Your task to perform on an android device: turn on wifi Image 0: 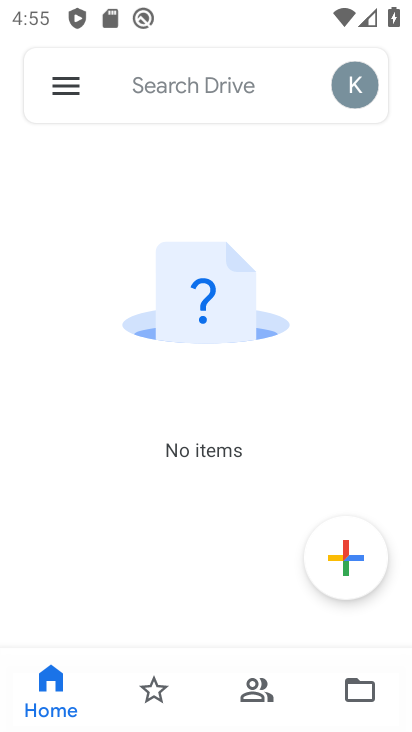
Step 0: press back button
Your task to perform on an android device: turn on wifi Image 1: 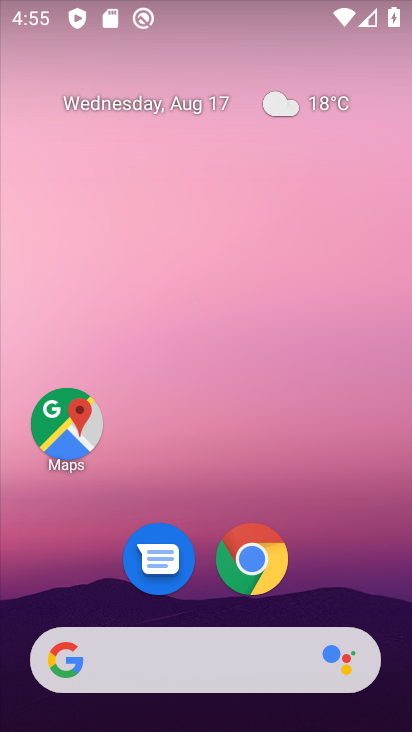
Step 1: drag from (198, 635) to (278, 169)
Your task to perform on an android device: turn on wifi Image 2: 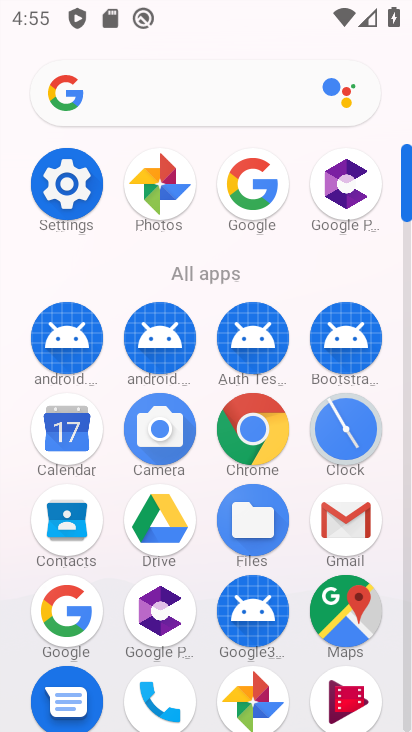
Step 2: click (81, 198)
Your task to perform on an android device: turn on wifi Image 3: 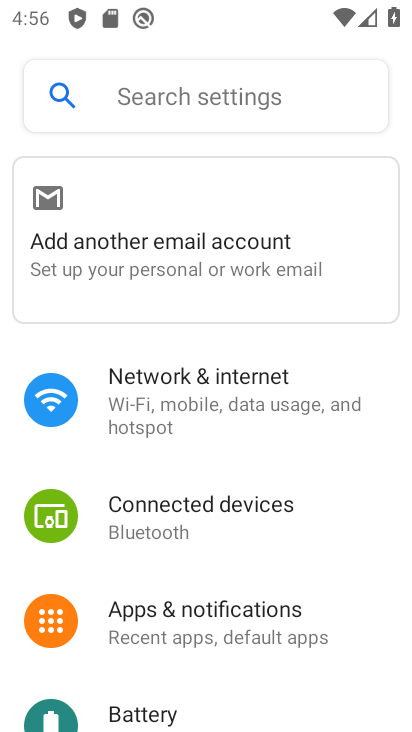
Step 3: click (204, 407)
Your task to perform on an android device: turn on wifi Image 4: 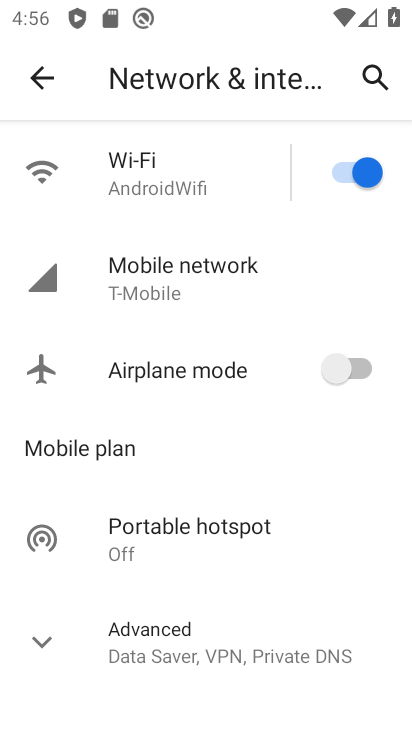
Step 4: task complete